Your task to perform on an android device: check the backup settings in the google photos Image 0: 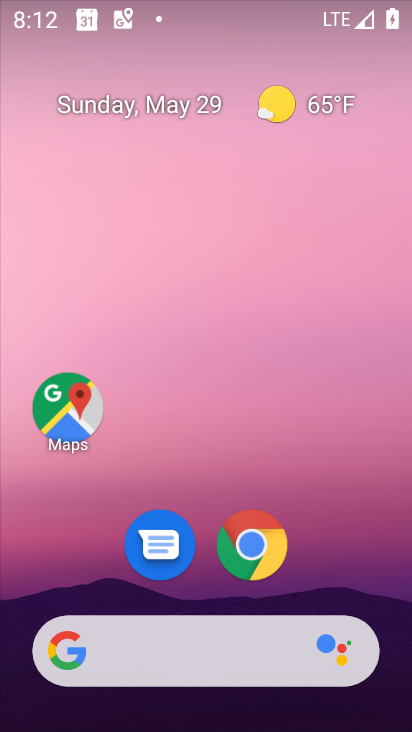
Step 0: drag from (218, 513) to (283, 271)
Your task to perform on an android device: check the backup settings in the google photos Image 1: 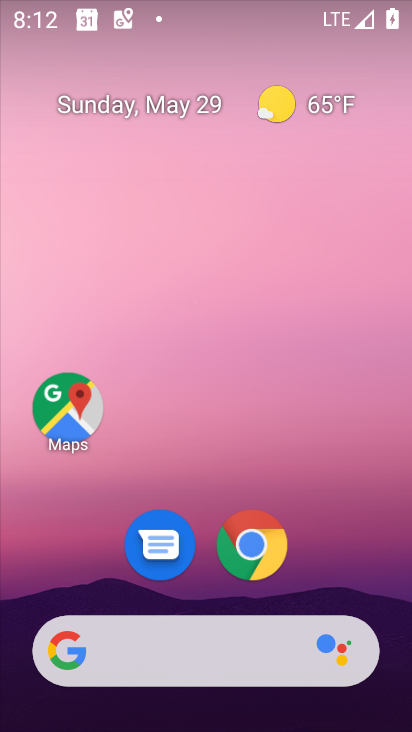
Step 1: drag from (214, 531) to (220, 202)
Your task to perform on an android device: check the backup settings in the google photos Image 2: 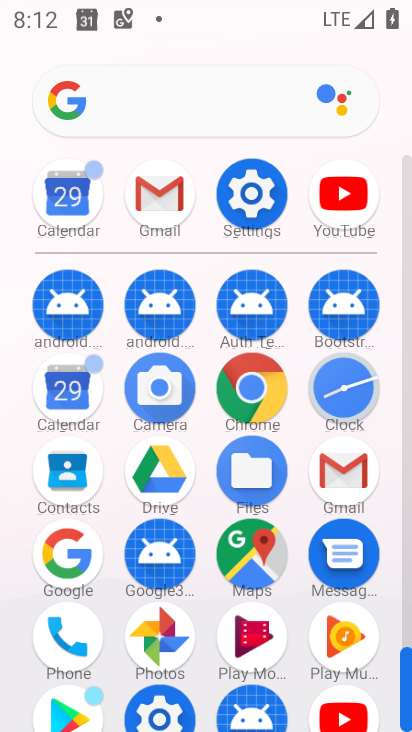
Step 2: click (161, 636)
Your task to perform on an android device: check the backup settings in the google photos Image 3: 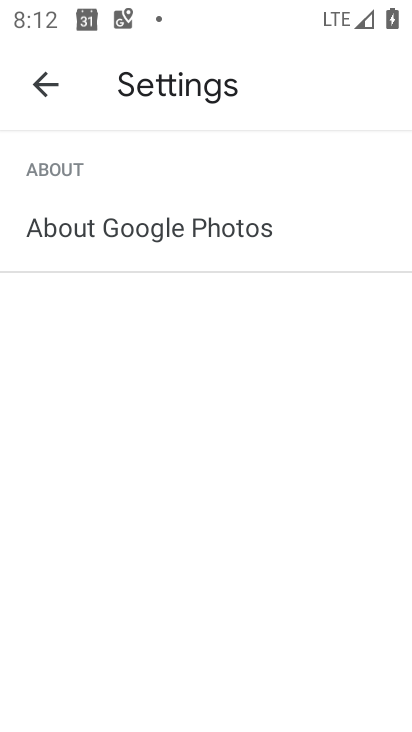
Step 3: click (43, 80)
Your task to perform on an android device: check the backup settings in the google photos Image 4: 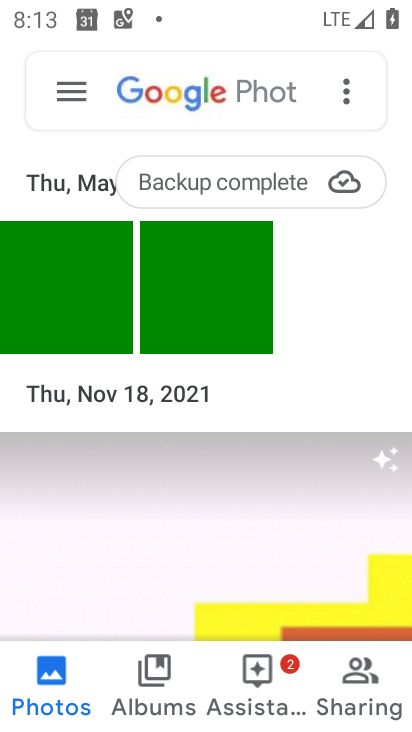
Step 4: click (63, 87)
Your task to perform on an android device: check the backup settings in the google photos Image 5: 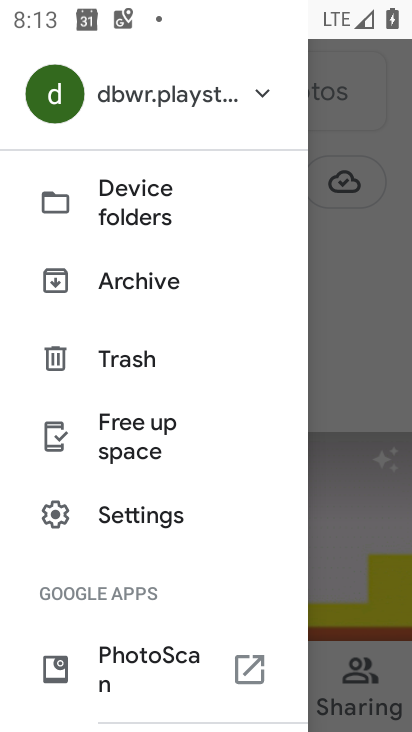
Step 5: click (143, 517)
Your task to perform on an android device: check the backup settings in the google photos Image 6: 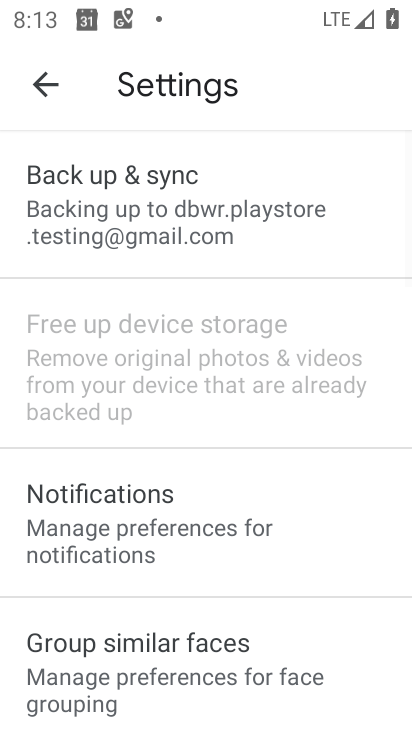
Step 6: click (120, 213)
Your task to perform on an android device: check the backup settings in the google photos Image 7: 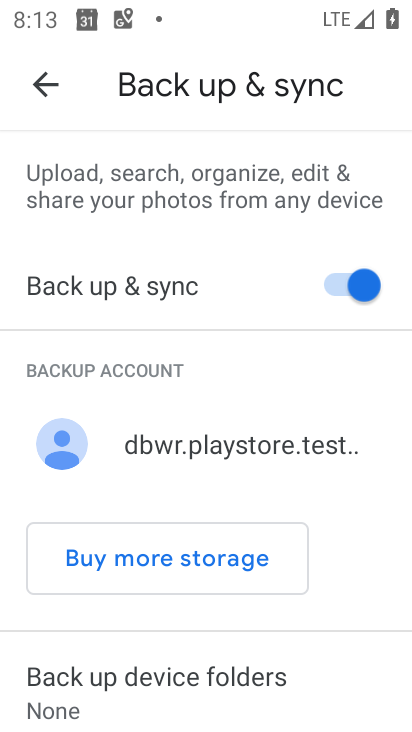
Step 7: task complete